Your task to perform on an android device: toggle priority inbox in the gmail app Image 0: 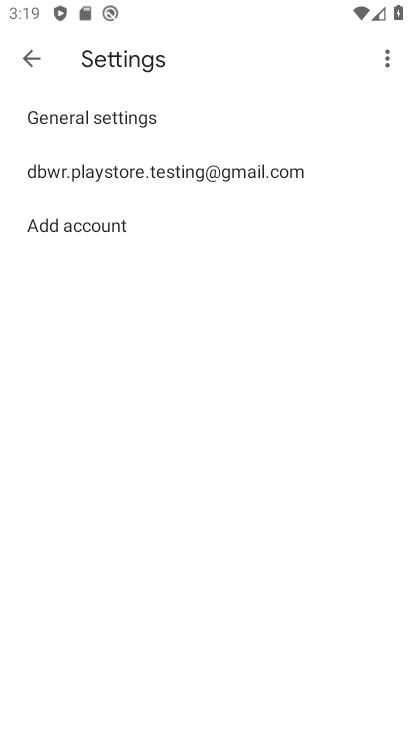
Step 0: press home button
Your task to perform on an android device: toggle priority inbox in the gmail app Image 1: 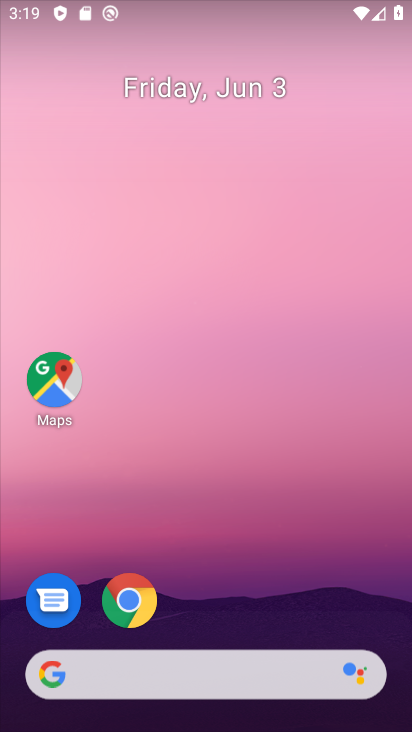
Step 1: drag from (194, 654) to (288, 160)
Your task to perform on an android device: toggle priority inbox in the gmail app Image 2: 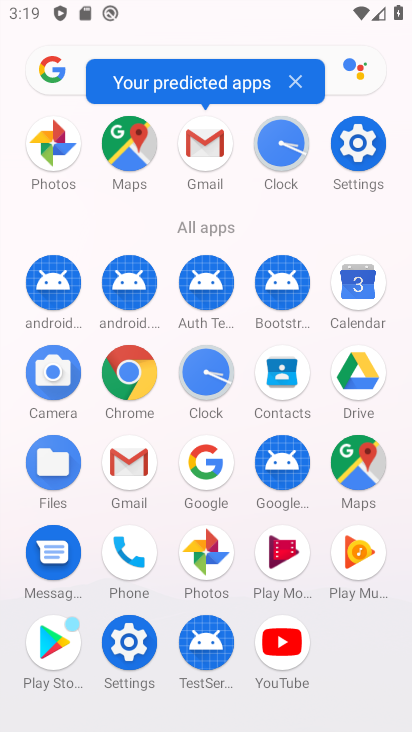
Step 2: click (128, 473)
Your task to perform on an android device: toggle priority inbox in the gmail app Image 3: 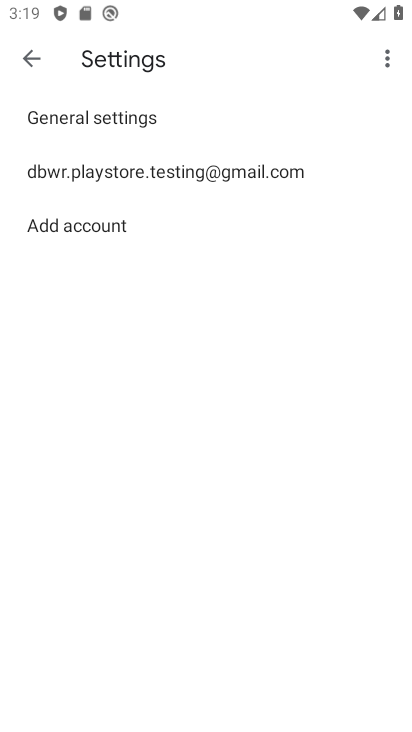
Step 3: click (262, 183)
Your task to perform on an android device: toggle priority inbox in the gmail app Image 4: 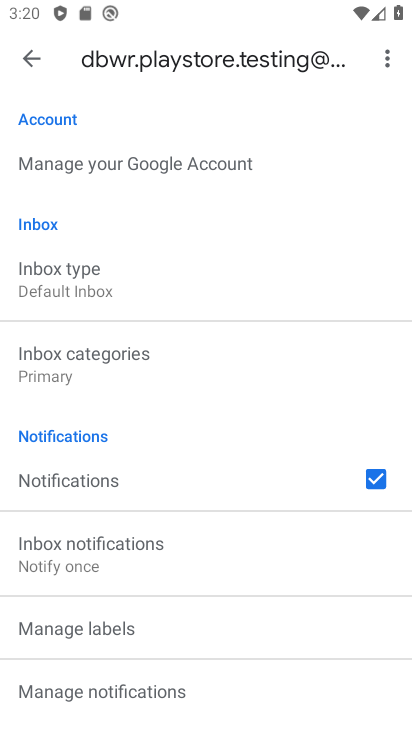
Step 4: click (172, 316)
Your task to perform on an android device: toggle priority inbox in the gmail app Image 5: 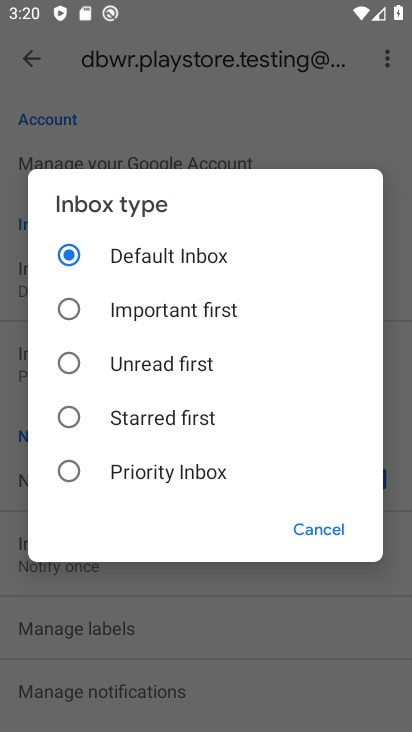
Step 5: click (170, 483)
Your task to perform on an android device: toggle priority inbox in the gmail app Image 6: 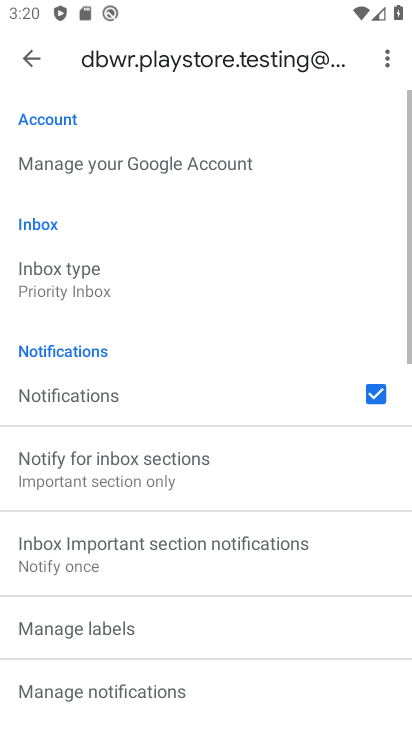
Step 6: task complete